Your task to perform on an android device: find which apps use the phone's location Image 0: 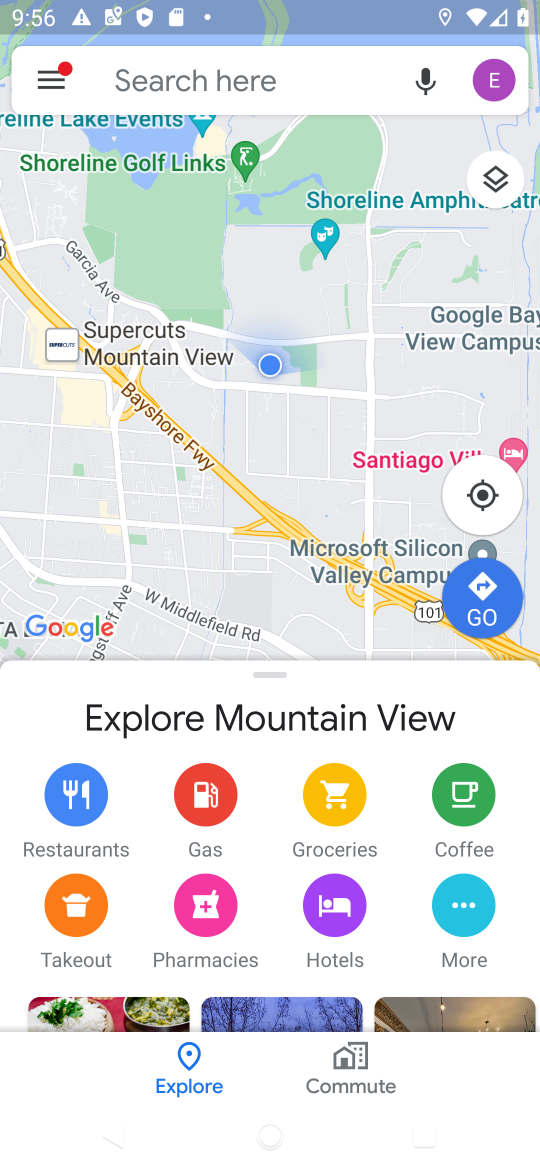
Step 0: press home button
Your task to perform on an android device: find which apps use the phone's location Image 1: 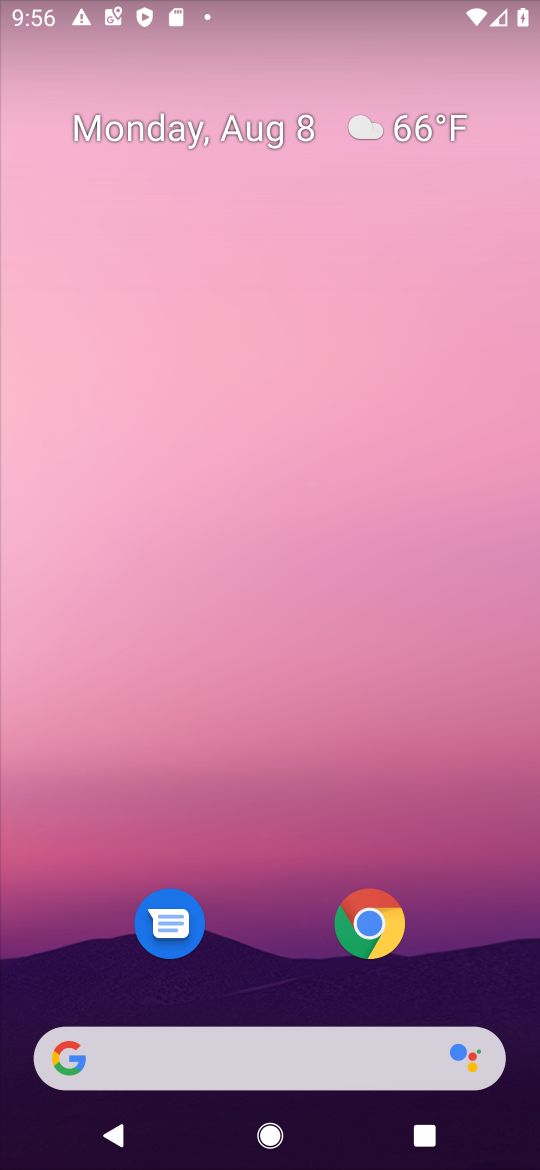
Step 1: drag from (39, 1130) to (297, 94)
Your task to perform on an android device: find which apps use the phone's location Image 2: 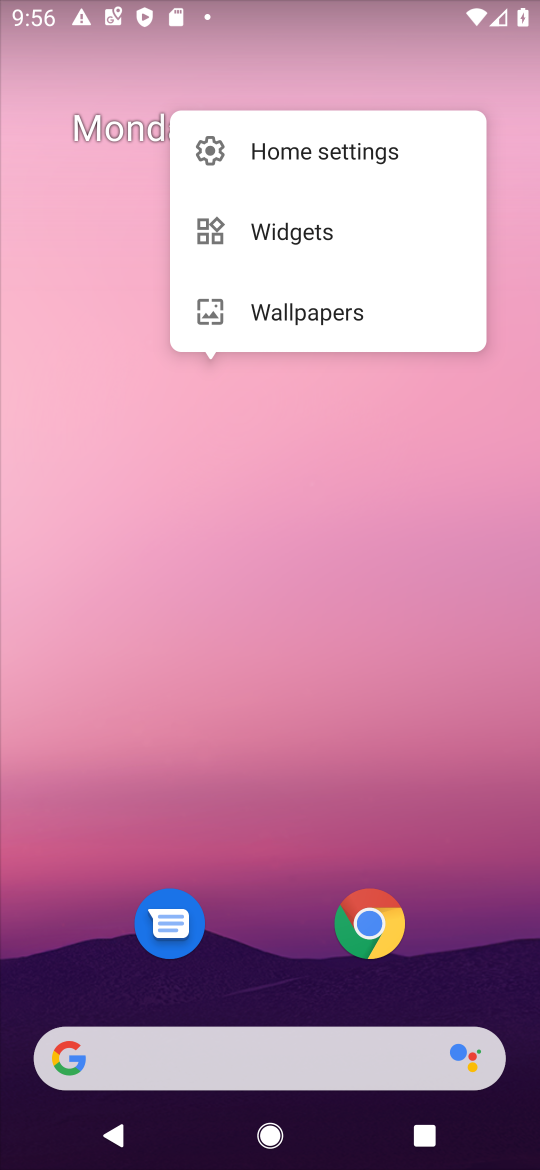
Step 2: drag from (151, 838) to (180, 283)
Your task to perform on an android device: find which apps use the phone's location Image 3: 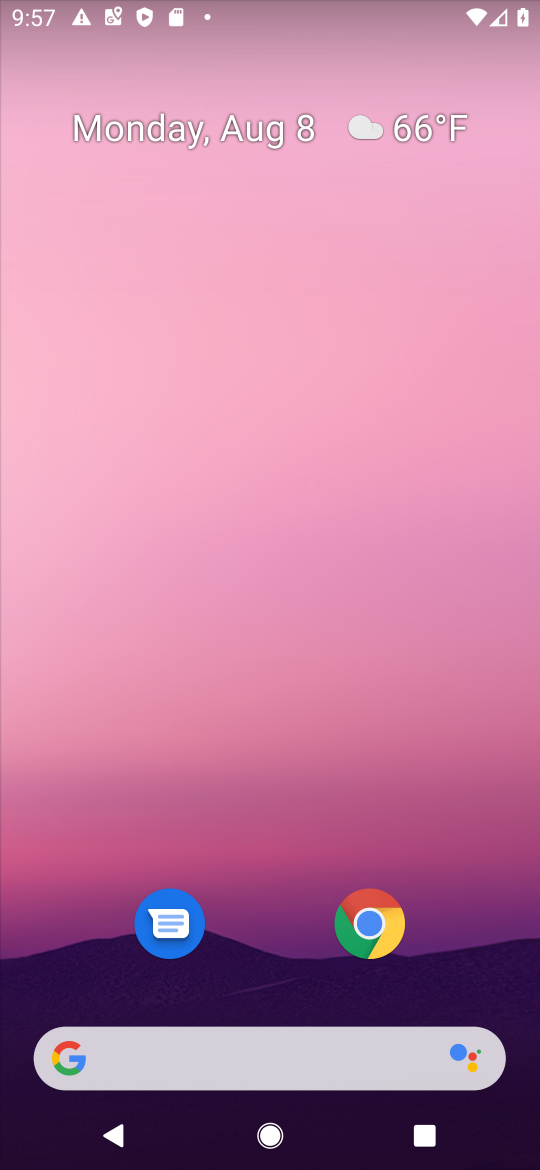
Step 3: drag from (28, 1100) to (103, 467)
Your task to perform on an android device: find which apps use the phone's location Image 4: 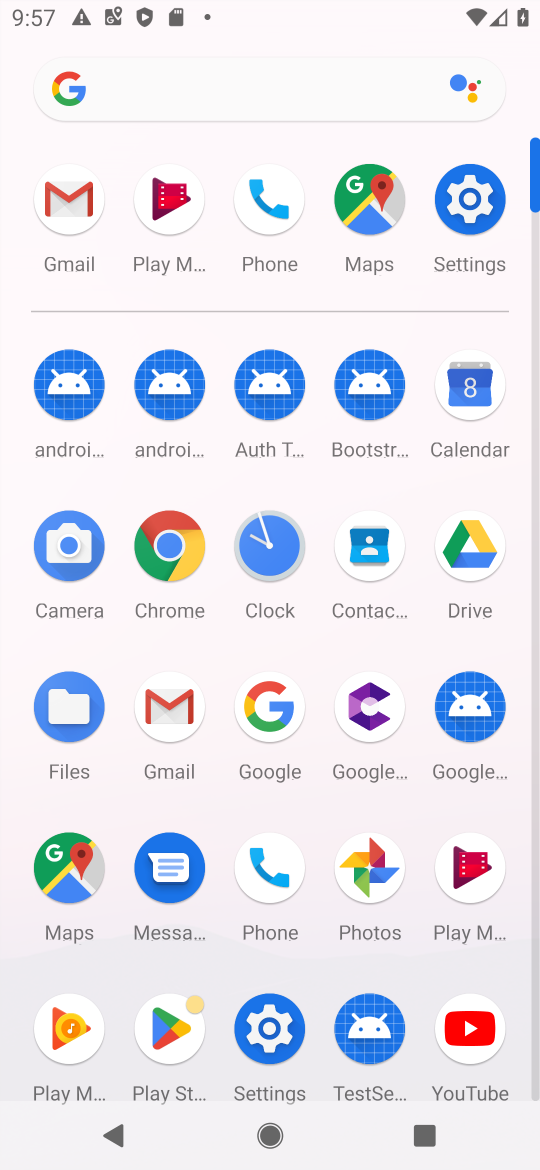
Step 4: click (272, 1059)
Your task to perform on an android device: find which apps use the phone's location Image 5: 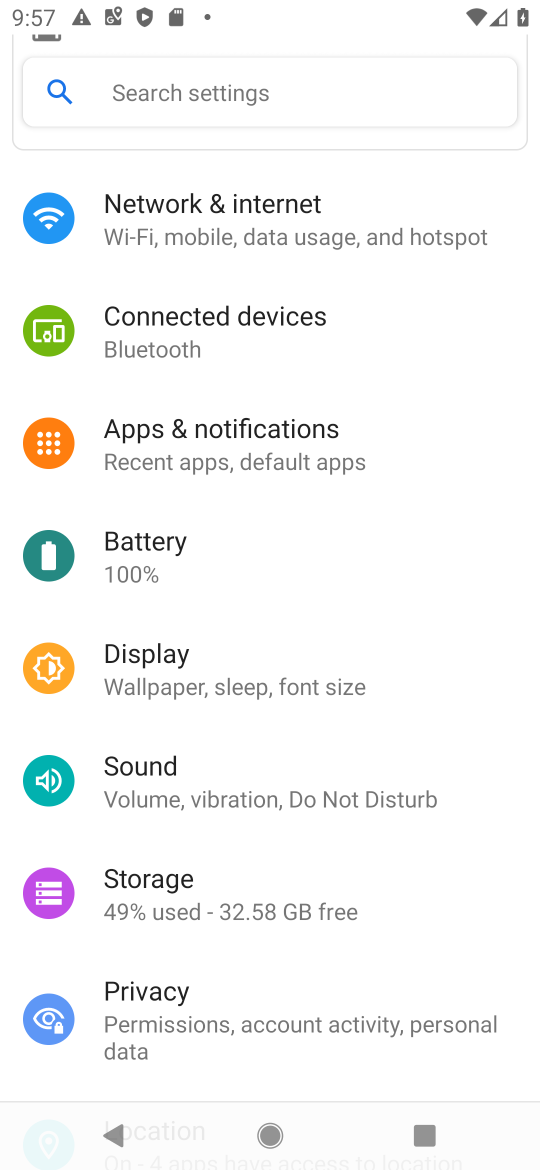
Step 5: drag from (429, 429) to (449, 381)
Your task to perform on an android device: find which apps use the phone's location Image 6: 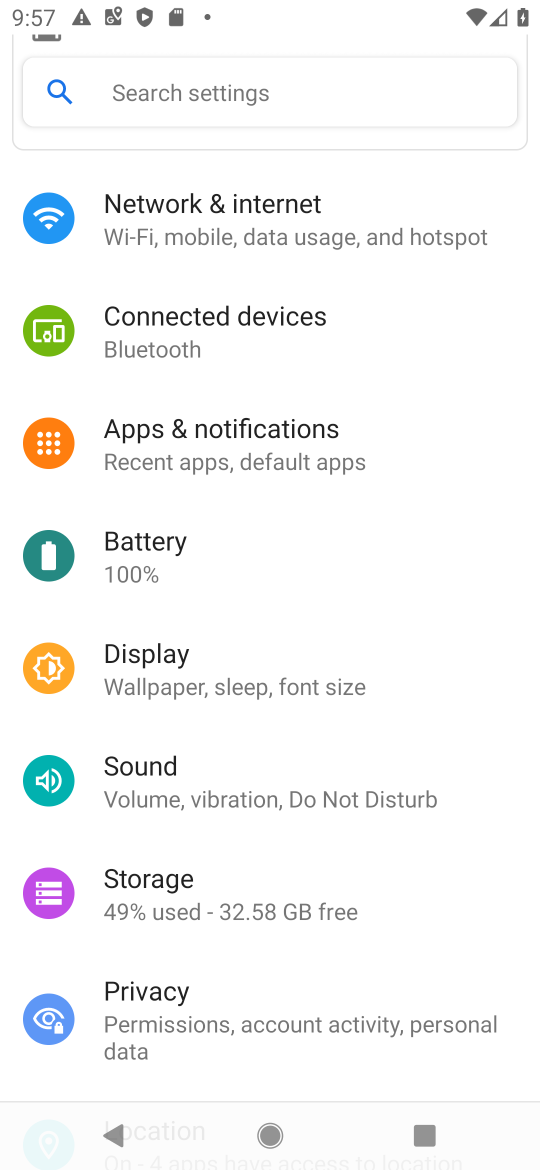
Step 6: drag from (494, 1065) to (445, 392)
Your task to perform on an android device: find which apps use the phone's location Image 7: 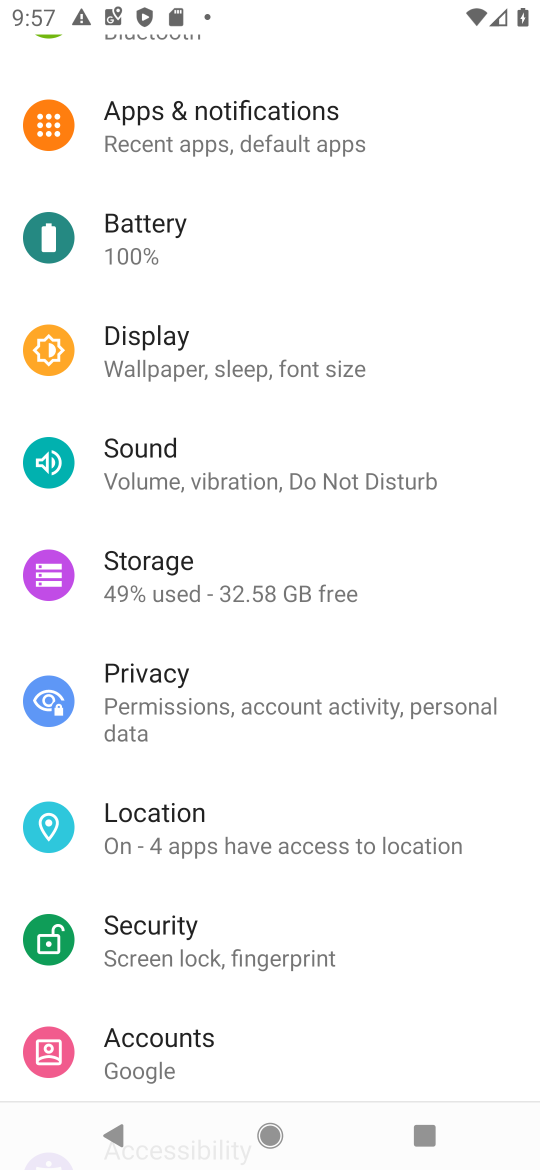
Step 7: click (163, 830)
Your task to perform on an android device: find which apps use the phone's location Image 8: 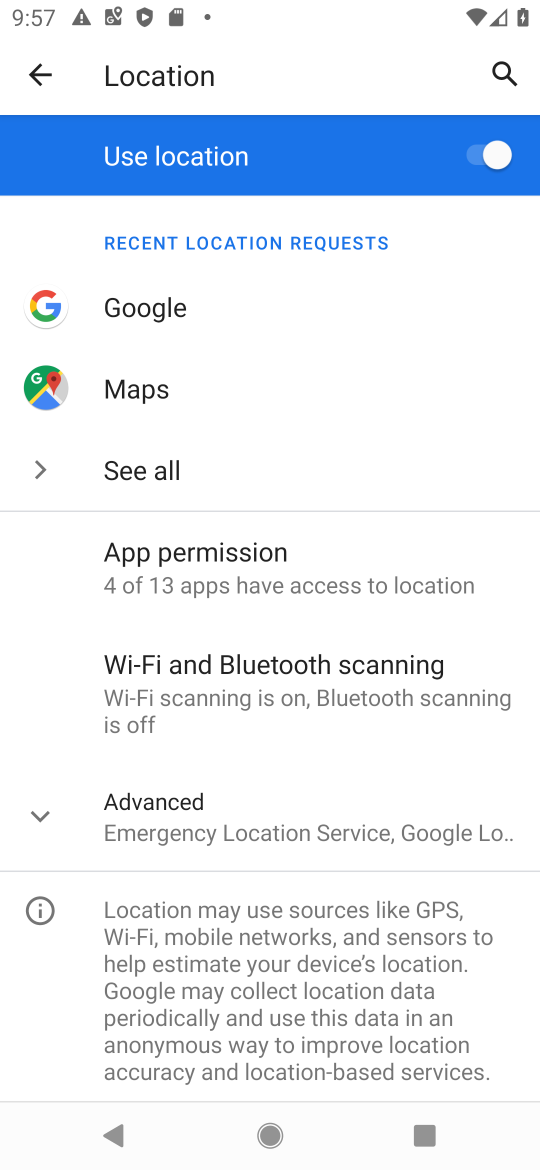
Step 8: click (193, 565)
Your task to perform on an android device: find which apps use the phone's location Image 9: 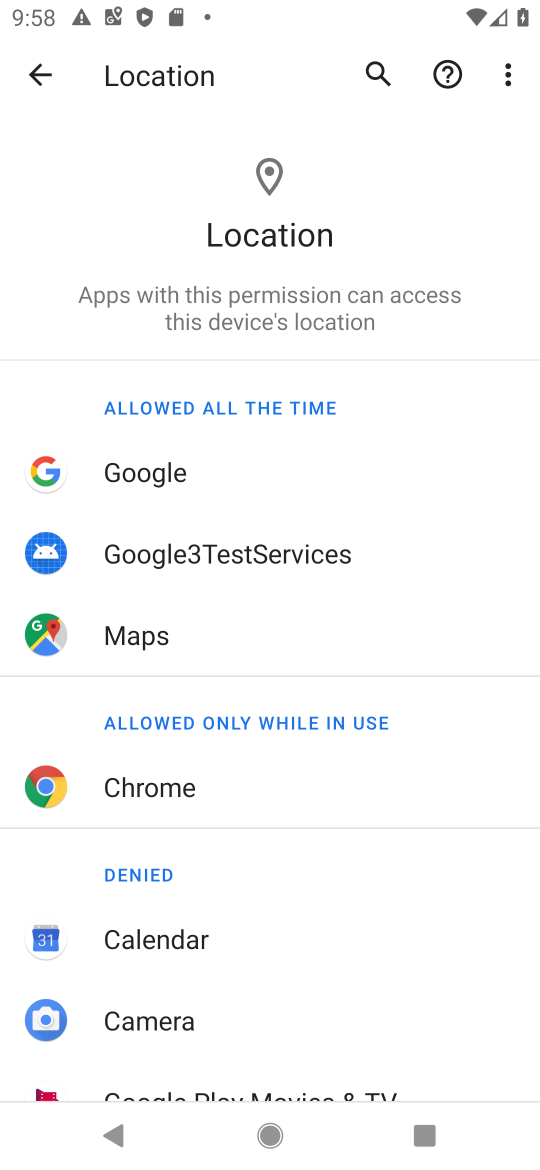
Step 9: task complete